Your task to perform on an android device: add a contact in the contacts app Image 0: 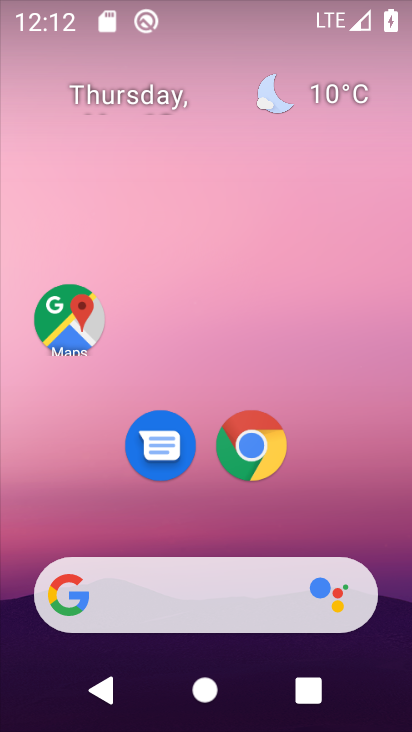
Step 0: drag from (220, 423) to (293, 43)
Your task to perform on an android device: add a contact in the contacts app Image 1: 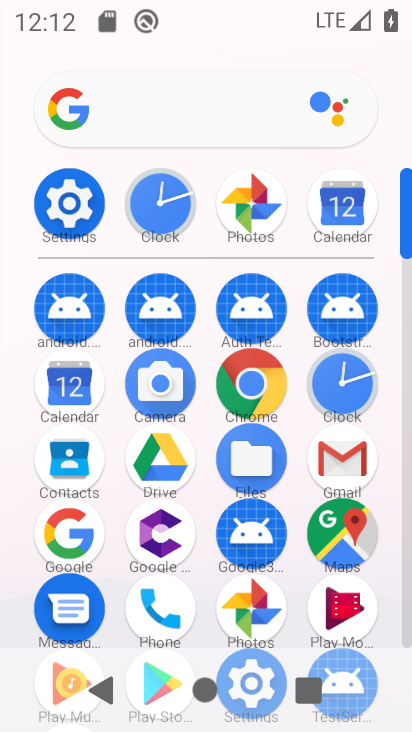
Step 1: click (65, 462)
Your task to perform on an android device: add a contact in the contacts app Image 2: 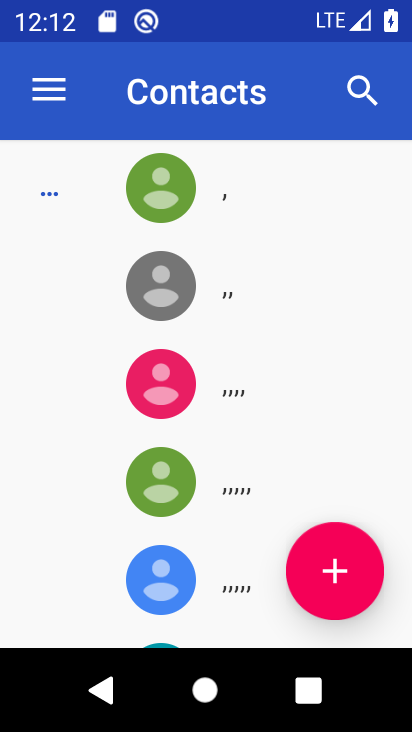
Step 2: click (365, 584)
Your task to perform on an android device: add a contact in the contacts app Image 3: 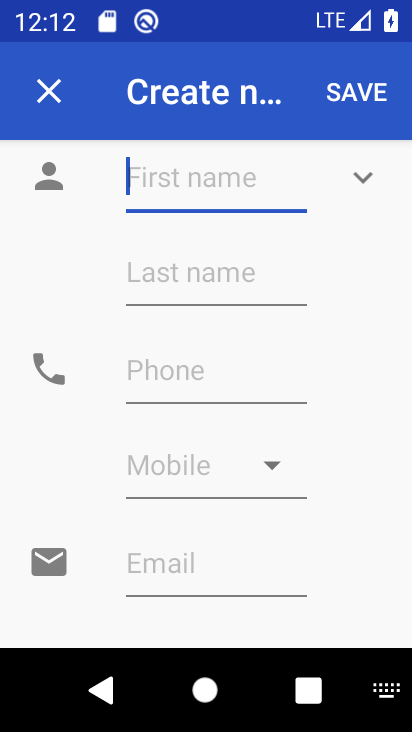
Step 3: click (166, 183)
Your task to perform on an android device: add a contact in the contacts app Image 4: 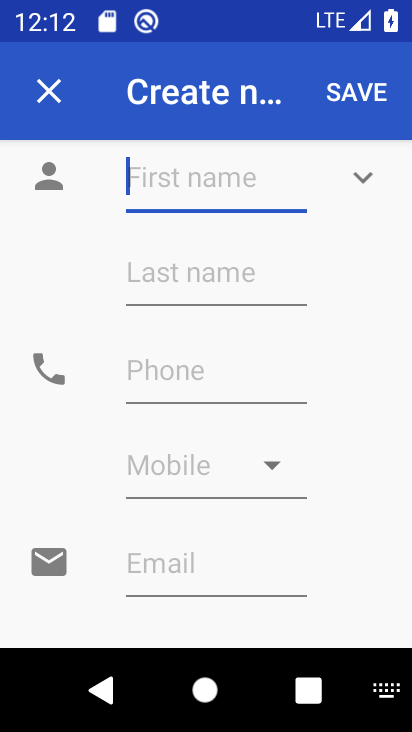
Step 4: type "vfb"
Your task to perform on an android device: add a contact in the contacts app Image 5: 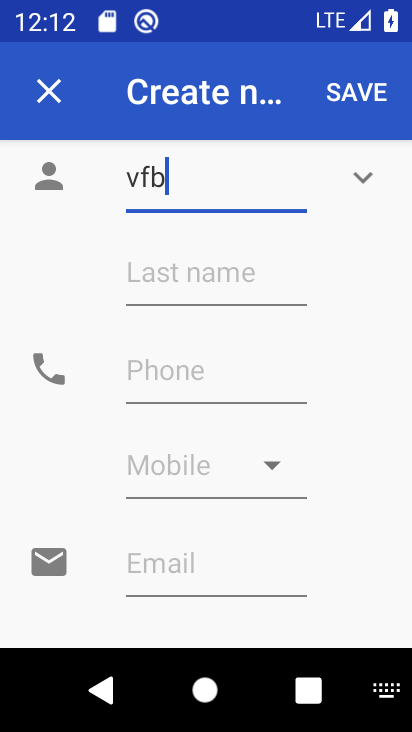
Step 5: click (203, 380)
Your task to perform on an android device: add a contact in the contacts app Image 6: 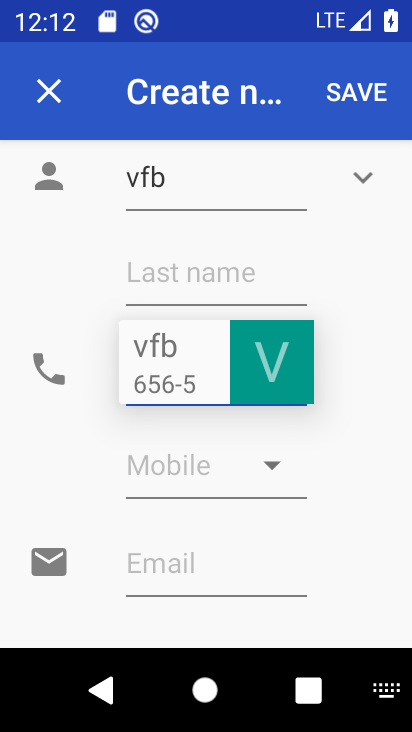
Step 6: type "6676"
Your task to perform on an android device: add a contact in the contacts app Image 7: 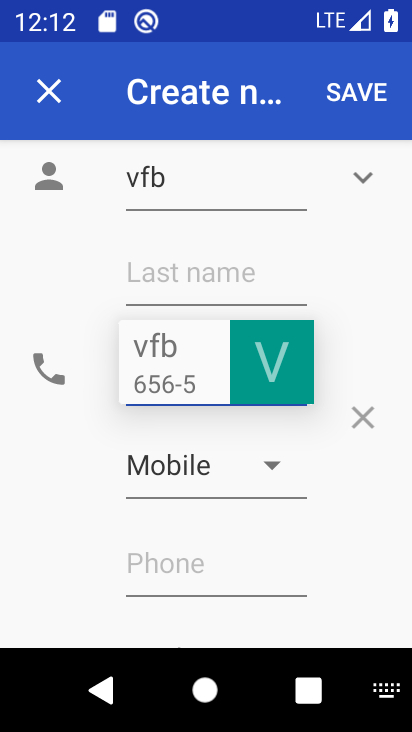
Step 7: click (370, 87)
Your task to perform on an android device: add a contact in the contacts app Image 8: 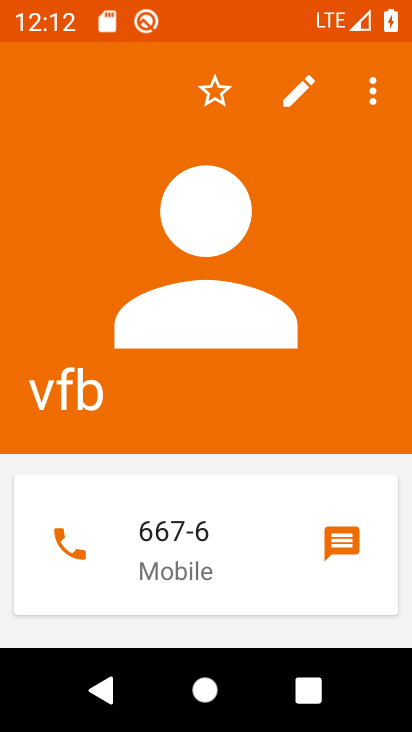
Step 8: task complete